Your task to perform on an android device: turn off notifications settings in the gmail app Image 0: 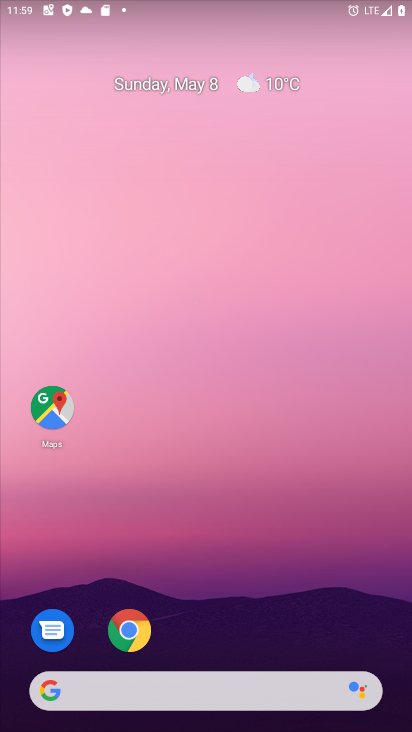
Step 0: drag from (369, 632) to (240, 74)
Your task to perform on an android device: turn off notifications settings in the gmail app Image 1: 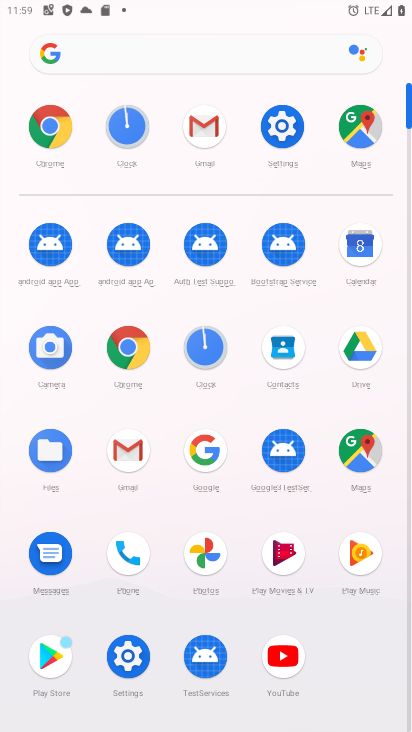
Step 1: click (135, 444)
Your task to perform on an android device: turn off notifications settings in the gmail app Image 2: 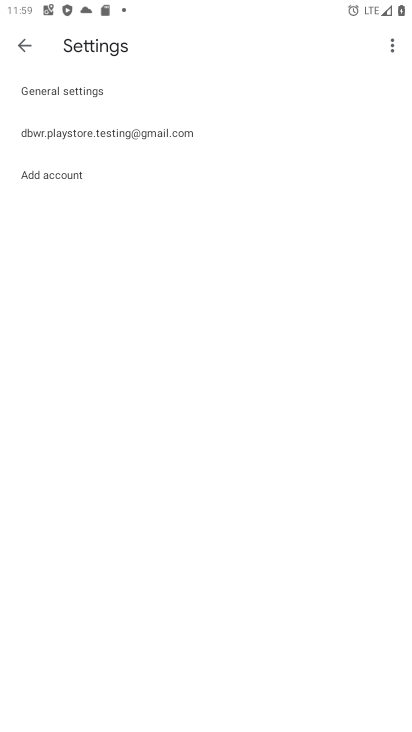
Step 2: click (147, 140)
Your task to perform on an android device: turn off notifications settings in the gmail app Image 3: 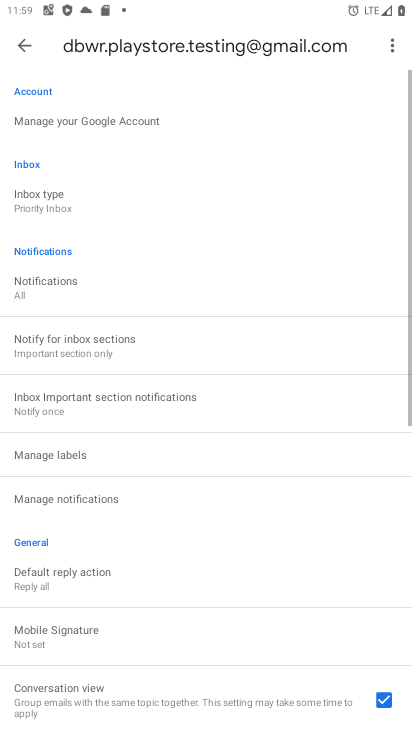
Step 3: click (88, 285)
Your task to perform on an android device: turn off notifications settings in the gmail app Image 4: 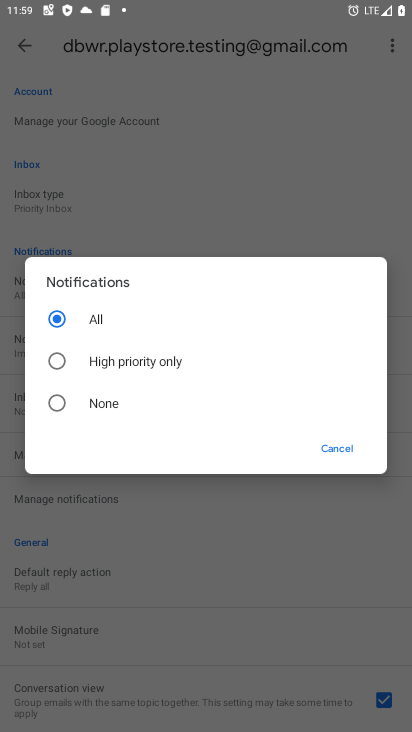
Step 4: click (51, 411)
Your task to perform on an android device: turn off notifications settings in the gmail app Image 5: 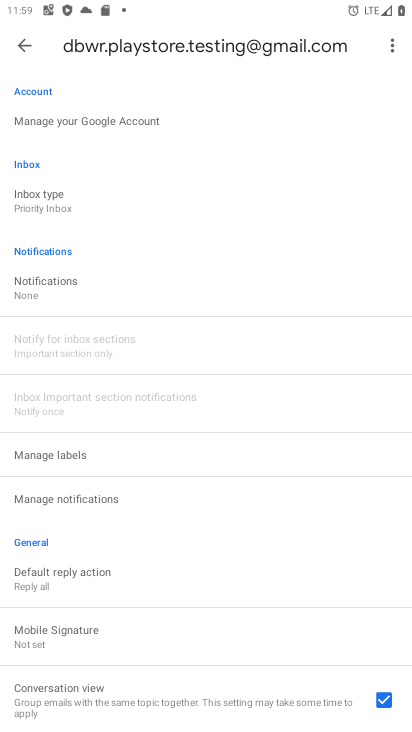
Step 5: task complete